Your task to perform on an android device: Clear all items from cart on target. Add acer nitro to the cart on target Image 0: 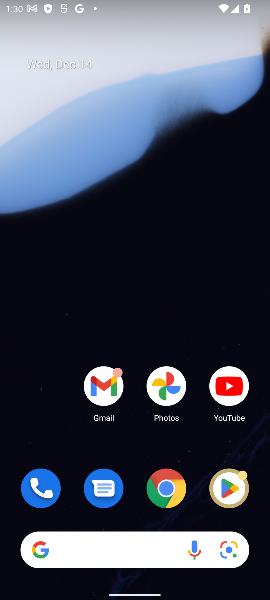
Step 0: drag from (136, 539) to (143, 412)
Your task to perform on an android device: Clear all items from cart on target. Add acer nitro to the cart on target Image 1: 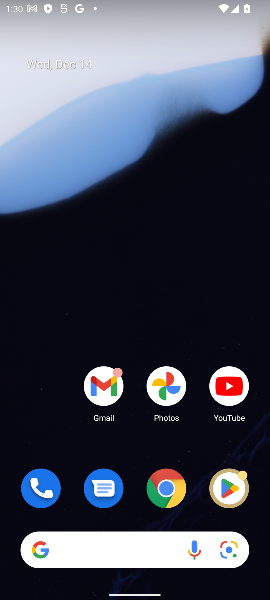
Step 1: drag from (133, 533) to (130, 307)
Your task to perform on an android device: Clear all items from cart on target. Add acer nitro to the cart on target Image 2: 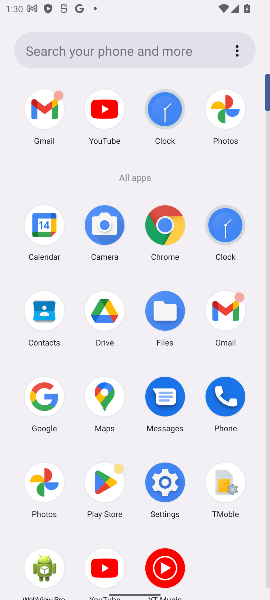
Step 2: click (36, 396)
Your task to perform on an android device: Clear all items from cart on target. Add acer nitro to the cart on target Image 3: 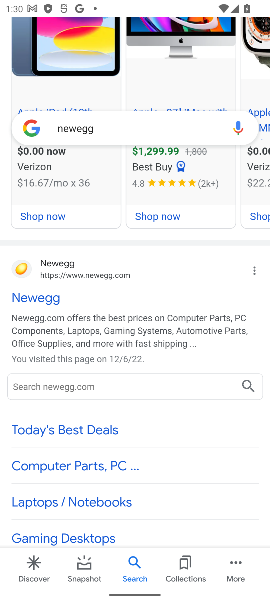
Step 3: drag from (149, 89) to (149, 352)
Your task to perform on an android device: Clear all items from cart on target. Add acer nitro to the cart on target Image 4: 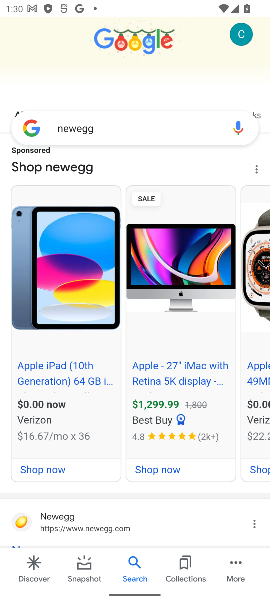
Step 4: click (136, 133)
Your task to perform on an android device: Clear all items from cart on target. Add acer nitro to the cart on target Image 5: 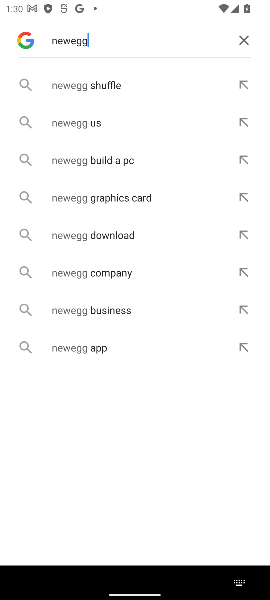
Step 5: click (239, 41)
Your task to perform on an android device: Clear all items from cart on target. Add acer nitro to the cart on target Image 6: 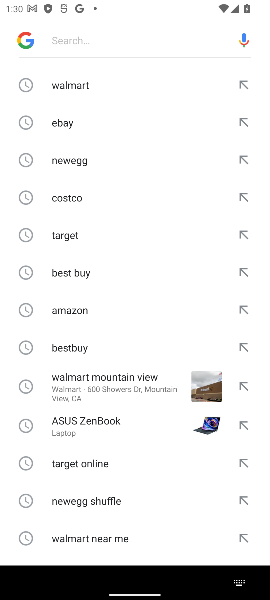
Step 6: click (64, 233)
Your task to perform on an android device: Clear all items from cart on target. Add acer nitro to the cart on target Image 7: 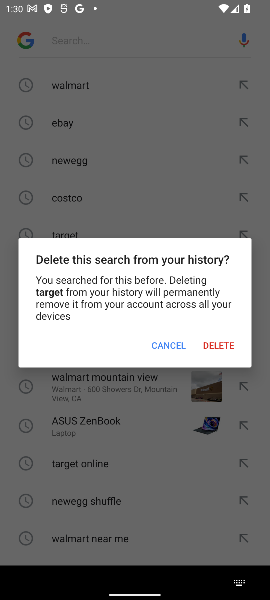
Step 7: click (170, 341)
Your task to perform on an android device: Clear all items from cart on target. Add acer nitro to the cart on target Image 8: 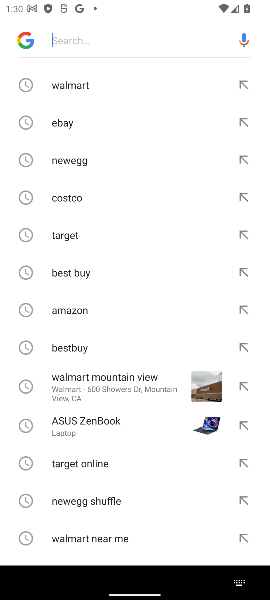
Step 8: click (67, 235)
Your task to perform on an android device: Clear all items from cart on target. Add acer nitro to the cart on target Image 9: 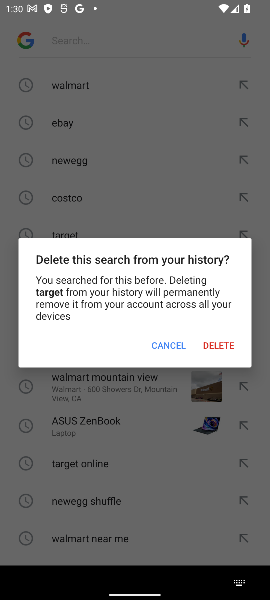
Step 9: click (169, 346)
Your task to perform on an android device: Clear all items from cart on target. Add acer nitro to the cart on target Image 10: 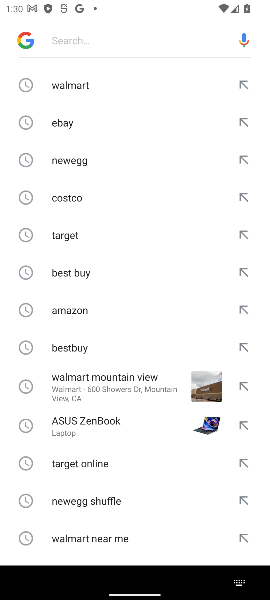
Step 10: click (56, 234)
Your task to perform on an android device: Clear all items from cart on target. Add acer nitro to the cart on target Image 11: 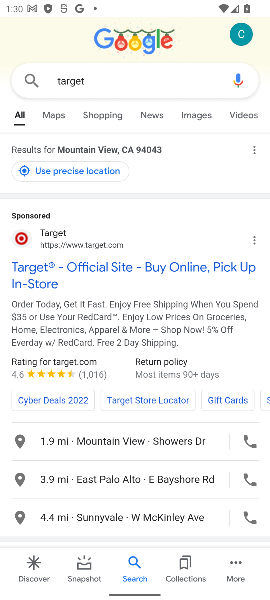
Step 11: click (80, 270)
Your task to perform on an android device: Clear all items from cart on target. Add acer nitro to the cart on target Image 12: 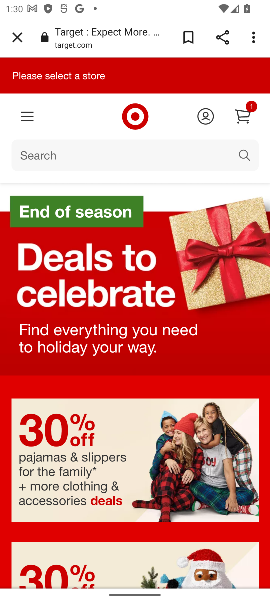
Step 12: click (244, 110)
Your task to perform on an android device: Clear all items from cart on target. Add acer nitro to the cart on target Image 13: 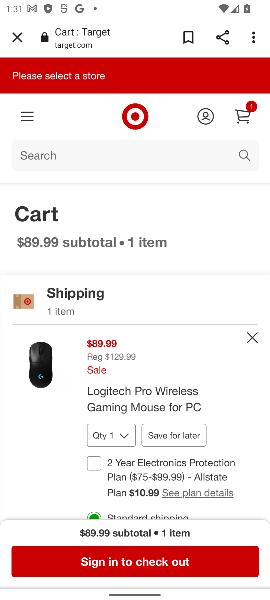
Step 13: drag from (76, 472) to (95, 332)
Your task to perform on an android device: Clear all items from cart on target. Add acer nitro to the cart on target Image 14: 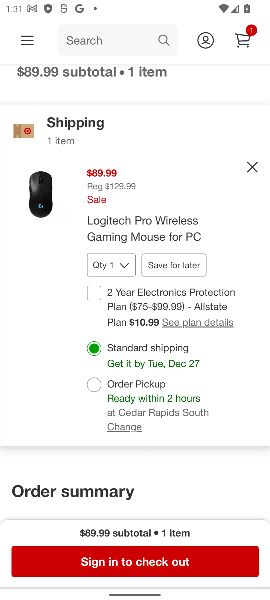
Step 14: click (253, 164)
Your task to perform on an android device: Clear all items from cart on target. Add acer nitro to the cart on target Image 15: 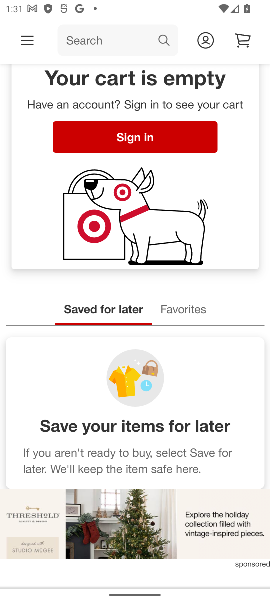
Step 15: drag from (154, 113) to (154, 316)
Your task to perform on an android device: Clear all items from cart on target. Add acer nitro to the cart on target Image 16: 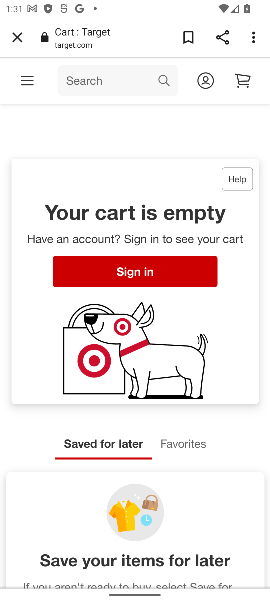
Step 16: click (120, 82)
Your task to perform on an android device: Clear all items from cart on target. Add acer nitro to the cart on target Image 17: 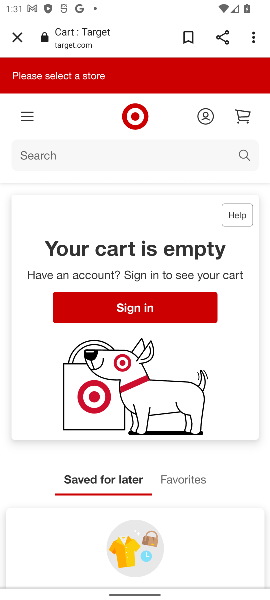
Step 17: click (36, 156)
Your task to perform on an android device: Clear all items from cart on target. Add acer nitro to the cart on target Image 18: 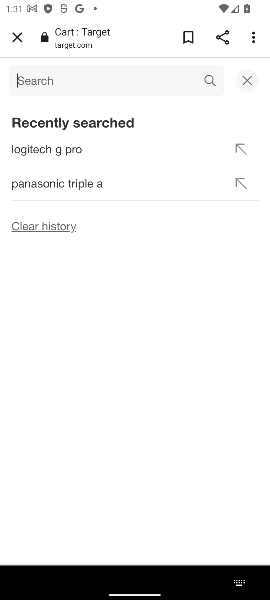
Step 18: type "acer nitro"
Your task to perform on an android device: Clear all items from cart on target. Add acer nitro to the cart on target Image 19: 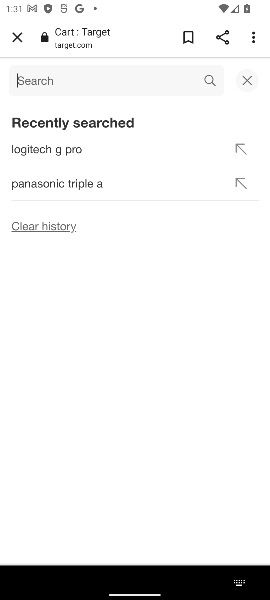
Step 19: click (207, 81)
Your task to perform on an android device: Clear all items from cart on target. Add acer nitro to the cart on target Image 20: 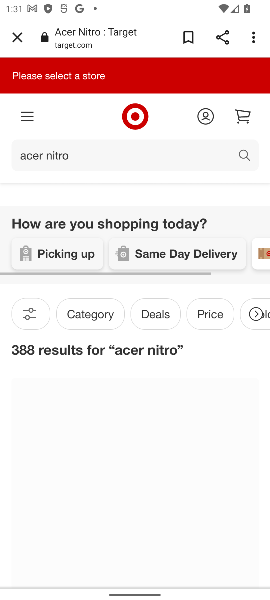
Step 20: click (241, 152)
Your task to perform on an android device: Clear all items from cart on target. Add acer nitro to the cart on target Image 21: 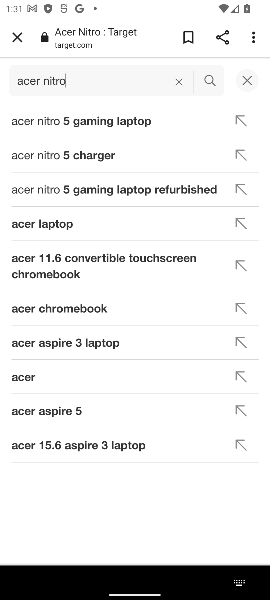
Step 21: click (246, 82)
Your task to perform on an android device: Clear all items from cart on target. Add acer nitro to the cart on target Image 22: 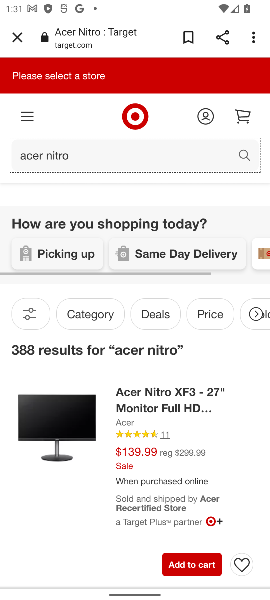
Step 22: click (181, 568)
Your task to perform on an android device: Clear all items from cart on target. Add acer nitro to the cart on target Image 23: 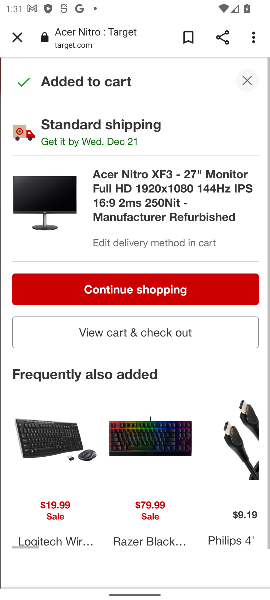
Step 23: click (128, 332)
Your task to perform on an android device: Clear all items from cart on target. Add acer nitro to the cart on target Image 24: 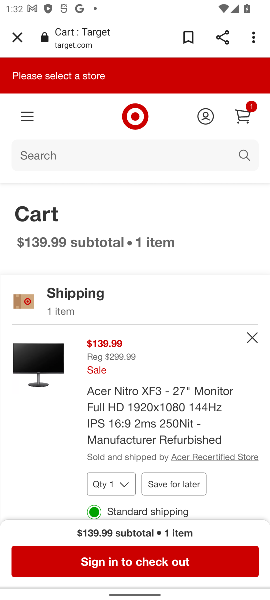
Step 24: click (104, 558)
Your task to perform on an android device: Clear all items from cart on target. Add acer nitro to the cart on target Image 25: 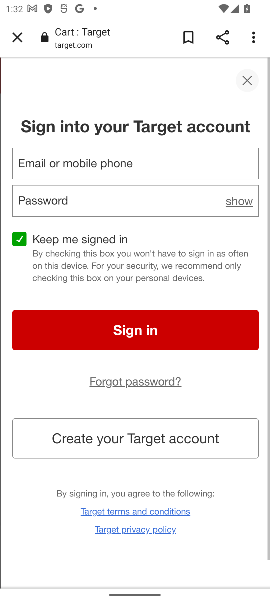
Step 25: task complete